Your task to perform on an android device: Show me productivity apps on the Play Store Image 0: 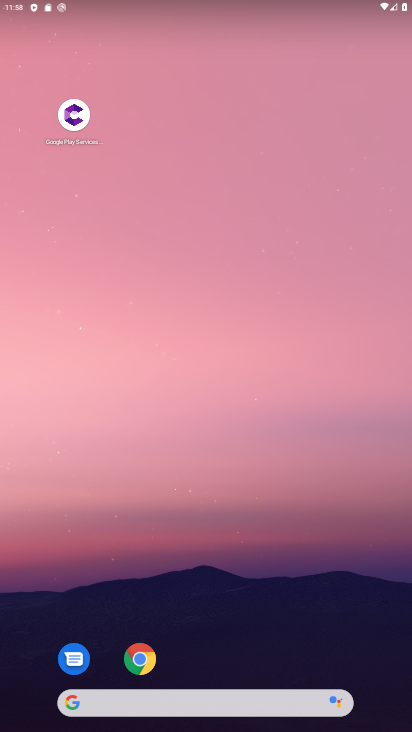
Step 0: drag from (204, 655) to (197, 194)
Your task to perform on an android device: Show me productivity apps on the Play Store Image 1: 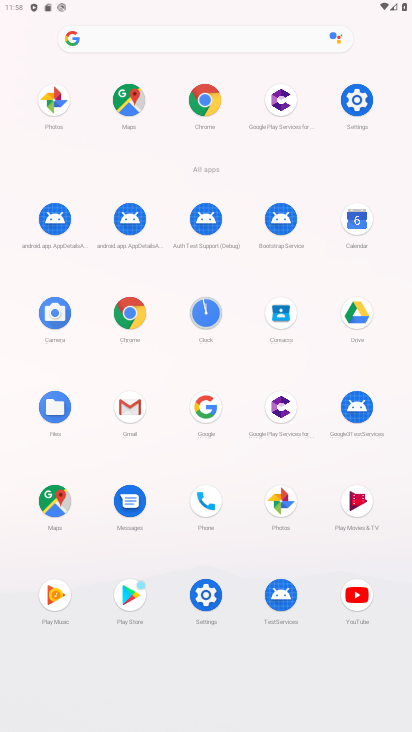
Step 1: click (137, 593)
Your task to perform on an android device: Show me productivity apps on the Play Store Image 2: 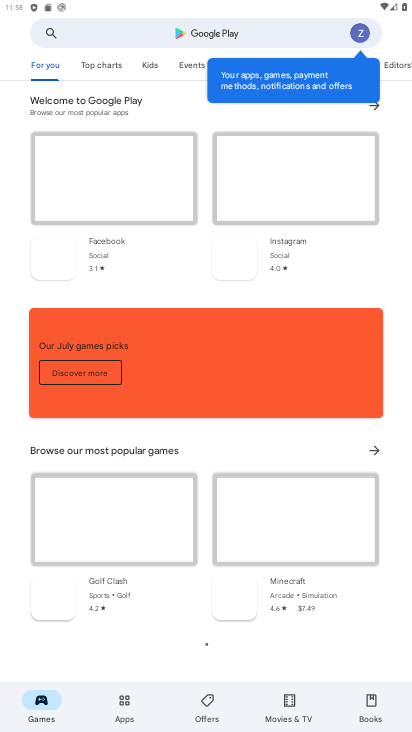
Step 2: click (124, 699)
Your task to perform on an android device: Show me productivity apps on the Play Store Image 3: 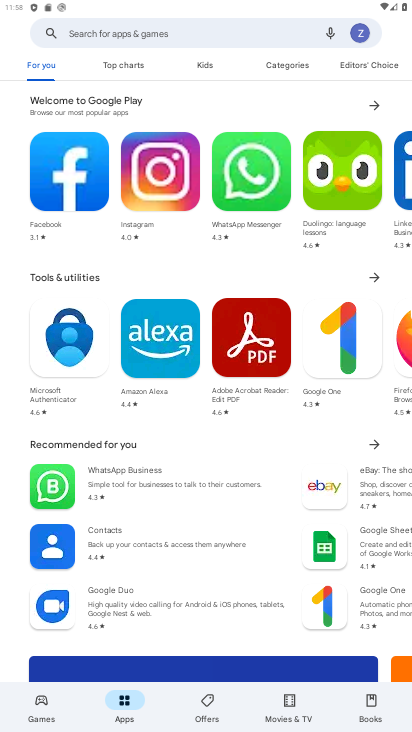
Step 3: drag from (205, 569) to (271, 43)
Your task to perform on an android device: Show me productivity apps on the Play Store Image 4: 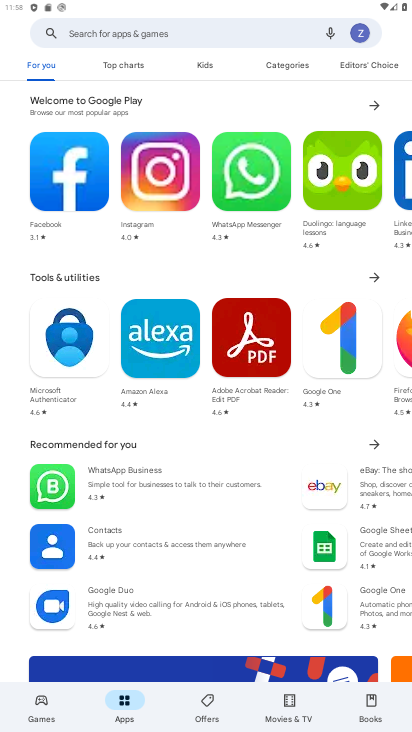
Step 4: drag from (198, 346) to (288, 0)
Your task to perform on an android device: Show me productivity apps on the Play Store Image 5: 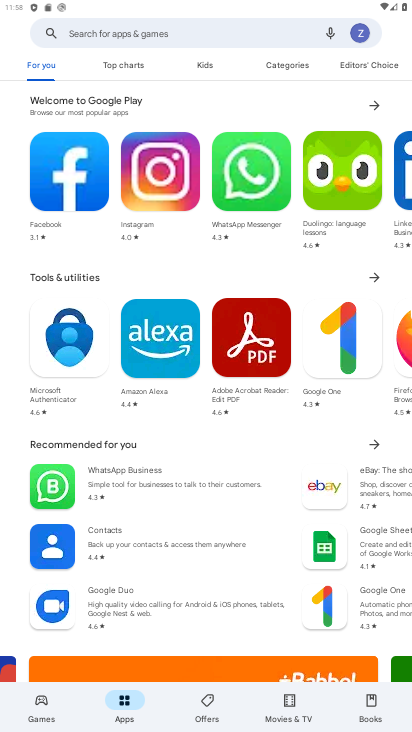
Step 5: drag from (163, 662) to (286, 116)
Your task to perform on an android device: Show me productivity apps on the Play Store Image 6: 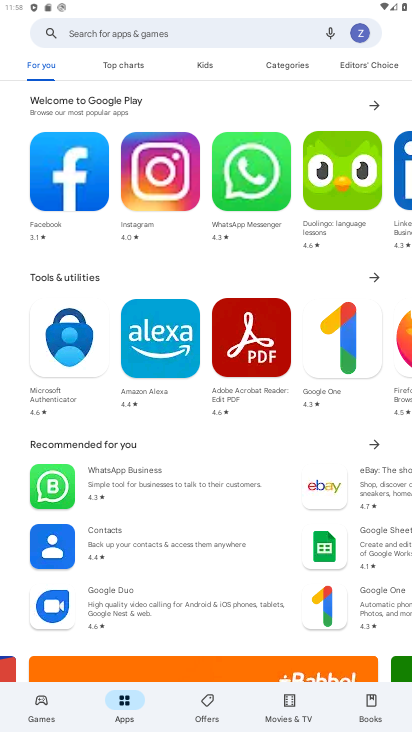
Step 6: drag from (140, 649) to (196, 197)
Your task to perform on an android device: Show me productivity apps on the Play Store Image 7: 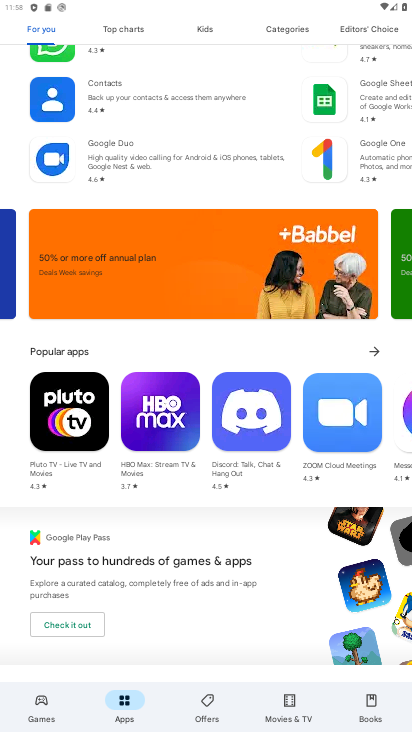
Step 7: drag from (183, 551) to (268, 46)
Your task to perform on an android device: Show me productivity apps on the Play Store Image 8: 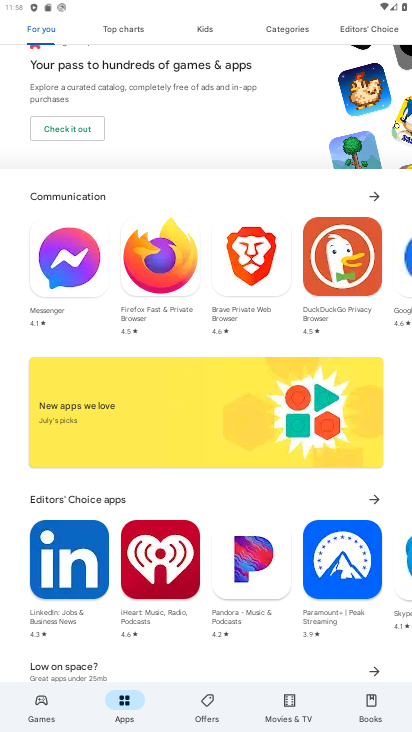
Step 8: drag from (161, 665) to (267, 118)
Your task to perform on an android device: Show me productivity apps on the Play Store Image 9: 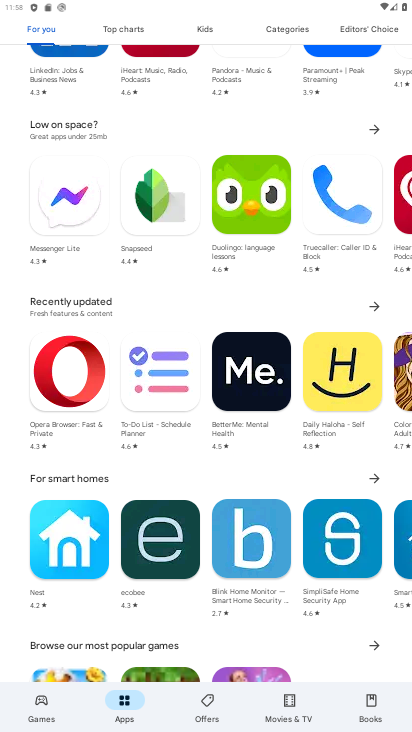
Step 9: drag from (236, 601) to (273, 198)
Your task to perform on an android device: Show me productivity apps on the Play Store Image 10: 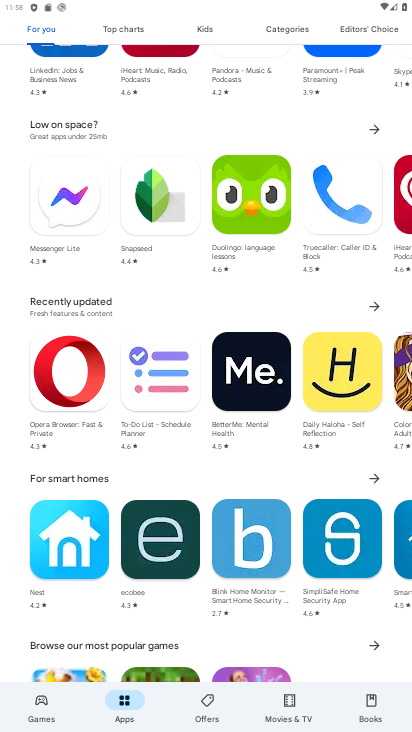
Step 10: drag from (267, 646) to (329, 194)
Your task to perform on an android device: Show me productivity apps on the Play Store Image 11: 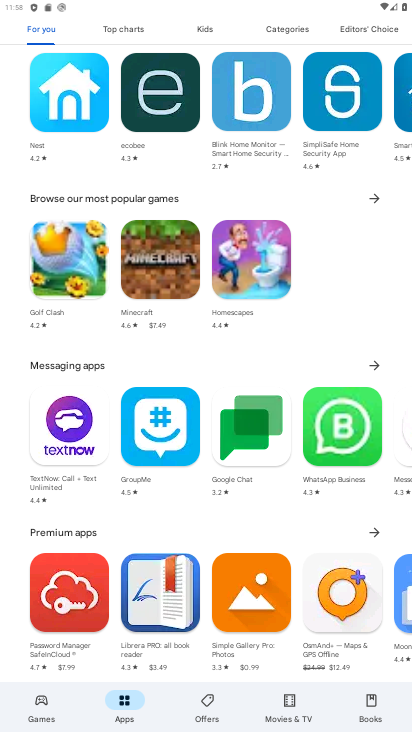
Step 11: drag from (204, 625) to (275, 111)
Your task to perform on an android device: Show me productivity apps on the Play Store Image 12: 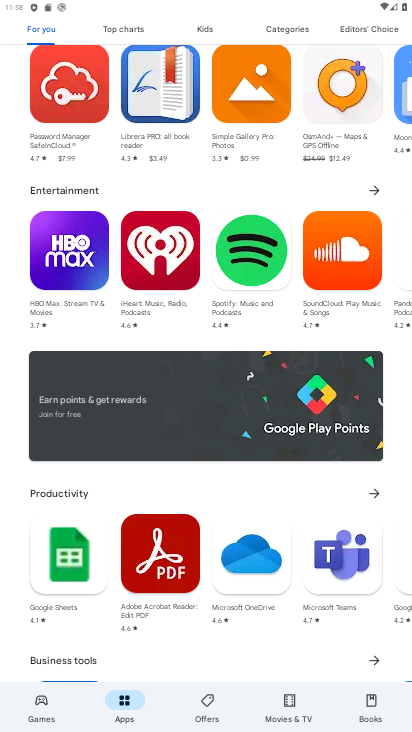
Step 12: click (379, 486)
Your task to perform on an android device: Show me productivity apps on the Play Store Image 13: 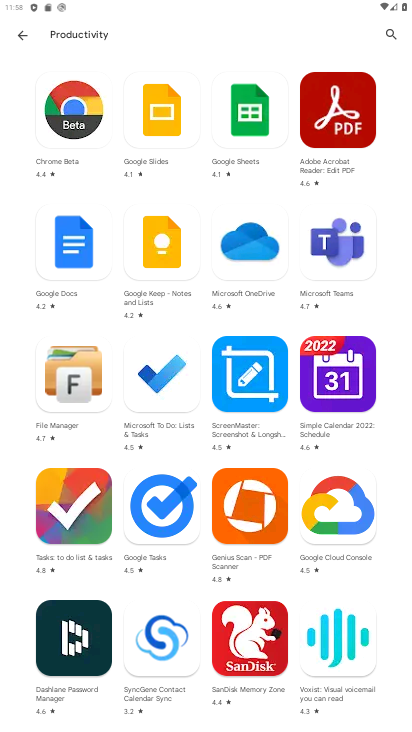
Step 13: task complete